Your task to perform on an android device: turn off javascript in the chrome app Image 0: 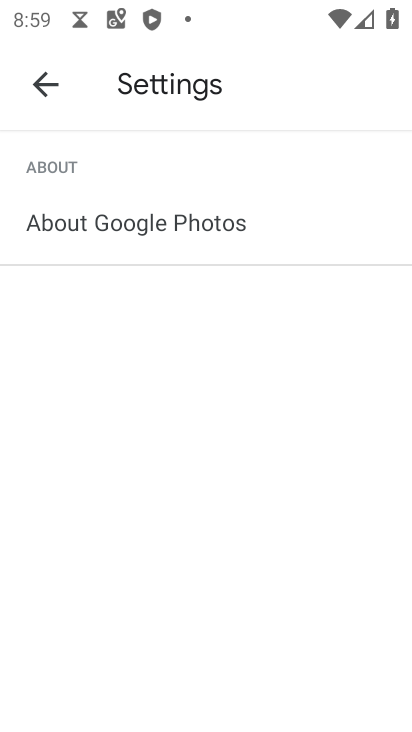
Step 0: press home button
Your task to perform on an android device: turn off javascript in the chrome app Image 1: 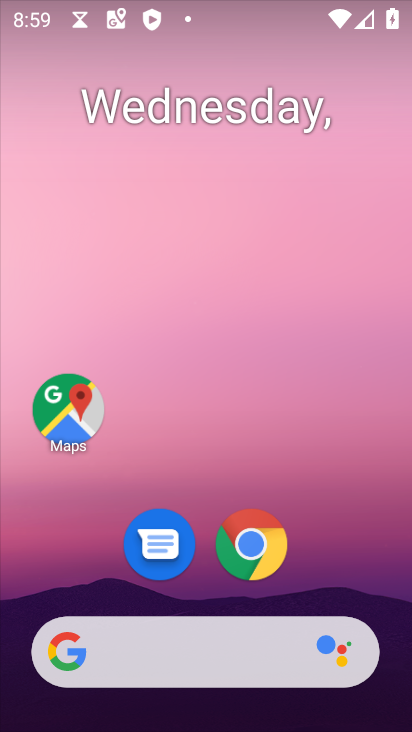
Step 1: drag from (173, 638) to (257, 172)
Your task to perform on an android device: turn off javascript in the chrome app Image 2: 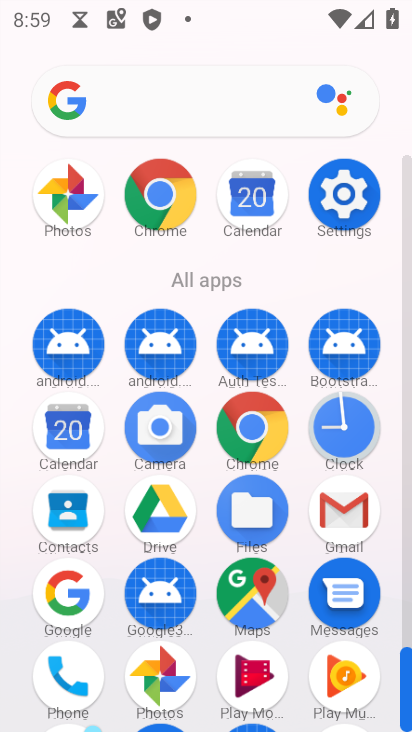
Step 2: click (171, 203)
Your task to perform on an android device: turn off javascript in the chrome app Image 3: 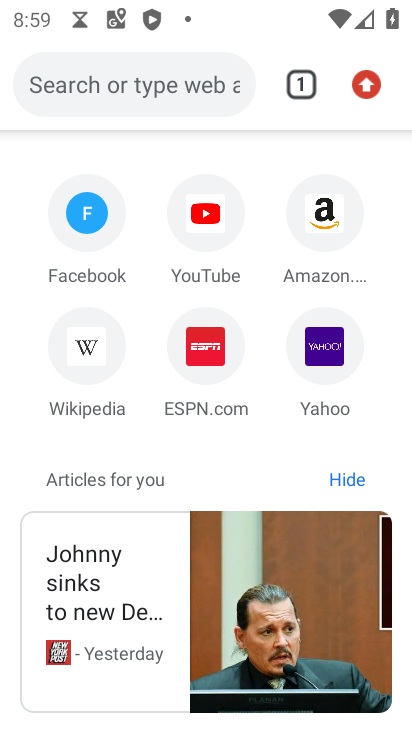
Step 3: click (362, 108)
Your task to perform on an android device: turn off javascript in the chrome app Image 4: 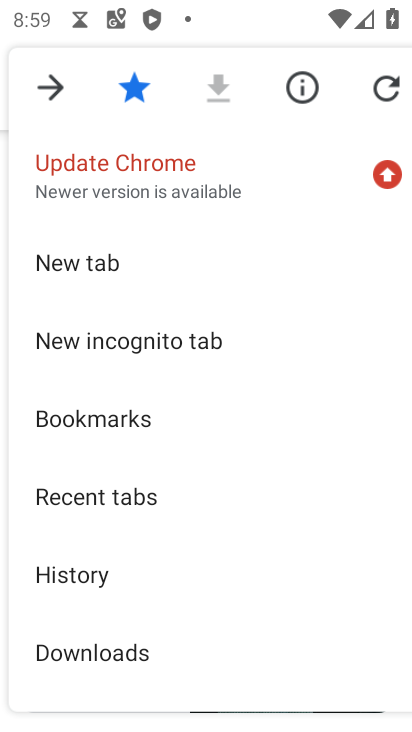
Step 4: drag from (210, 540) to (308, 134)
Your task to perform on an android device: turn off javascript in the chrome app Image 5: 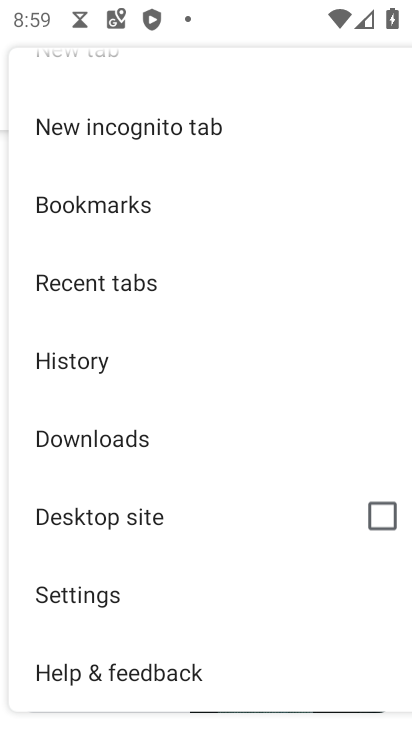
Step 5: click (102, 600)
Your task to perform on an android device: turn off javascript in the chrome app Image 6: 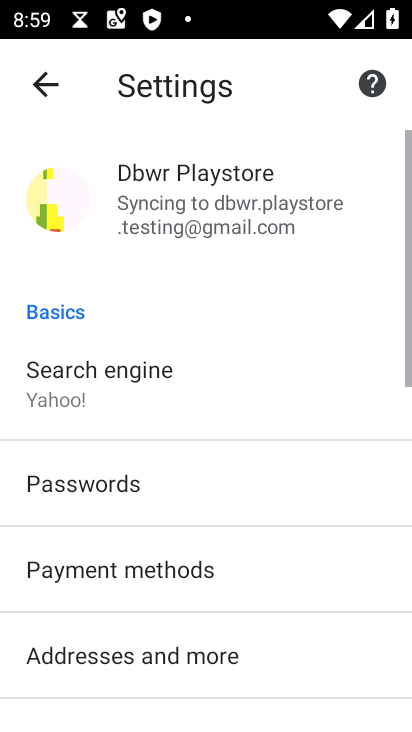
Step 6: drag from (97, 616) to (252, 188)
Your task to perform on an android device: turn off javascript in the chrome app Image 7: 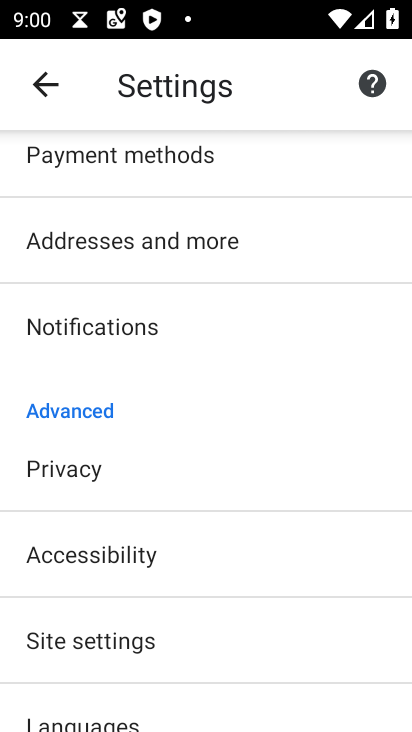
Step 7: click (121, 638)
Your task to perform on an android device: turn off javascript in the chrome app Image 8: 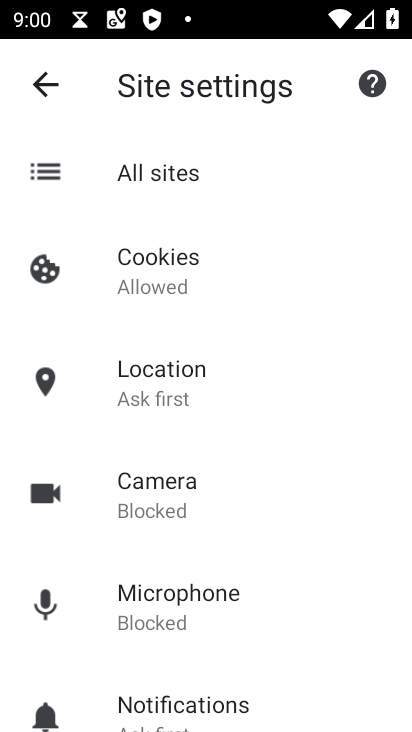
Step 8: drag from (212, 640) to (333, 264)
Your task to perform on an android device: turn off javascript in the chrome app Image 9: 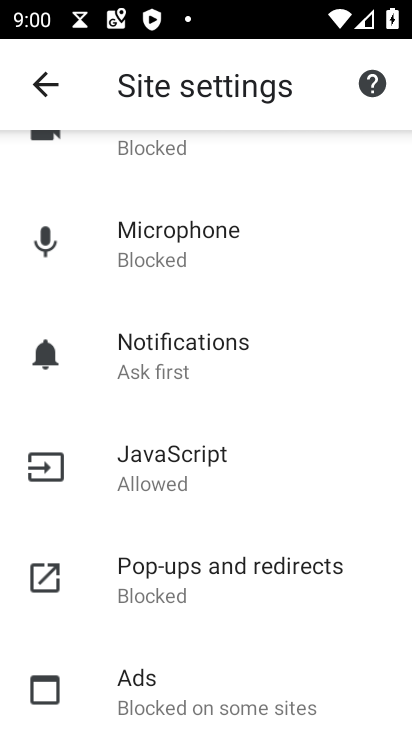
Step 9: click (152, 461)
Your task to perform on an android device: turn off javascript in the chrome app Image 10: 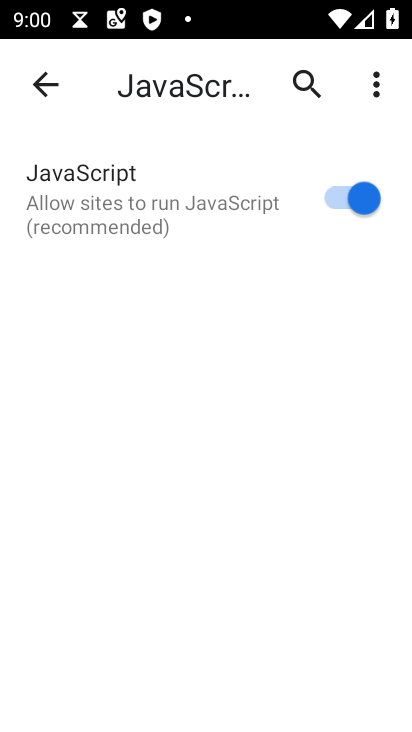
Step 10: click (334, 202)
Your task to perform on an android device: turn off javascript in the chrome app Image 11: 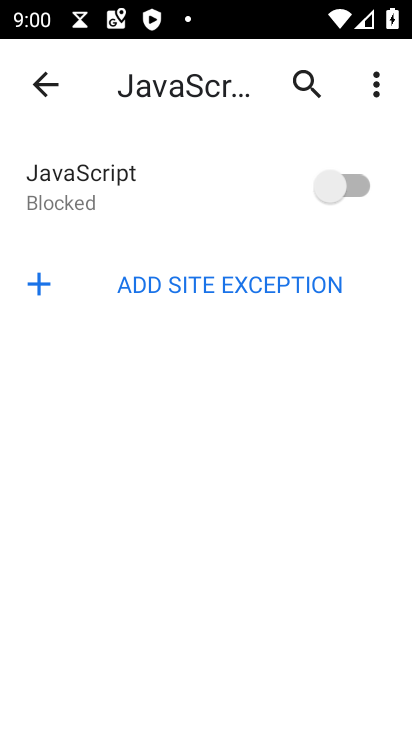
Step 11: task complete